Your task to perform on an android device: change notifications settings Image 0: 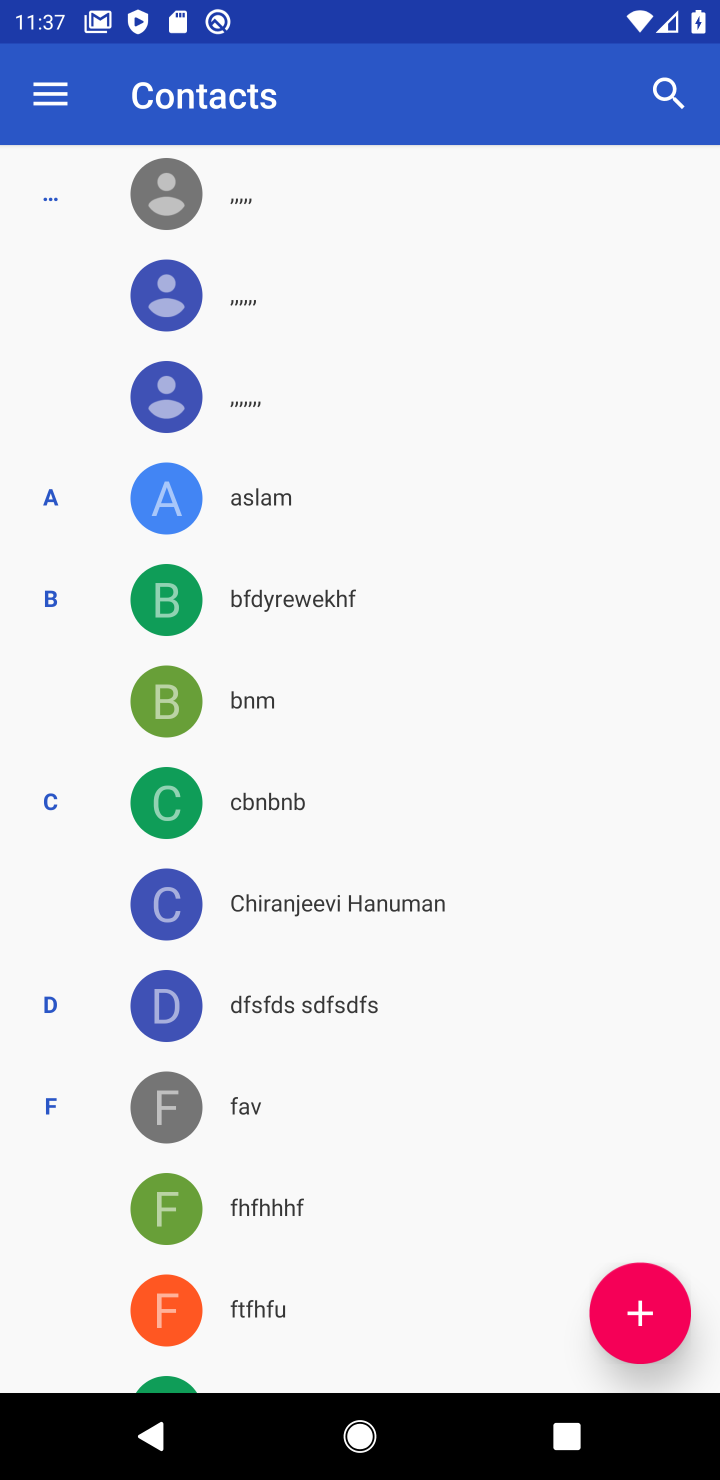
Step 0: press home button
Your task to perform on an android device: change notifications settings Image 1: 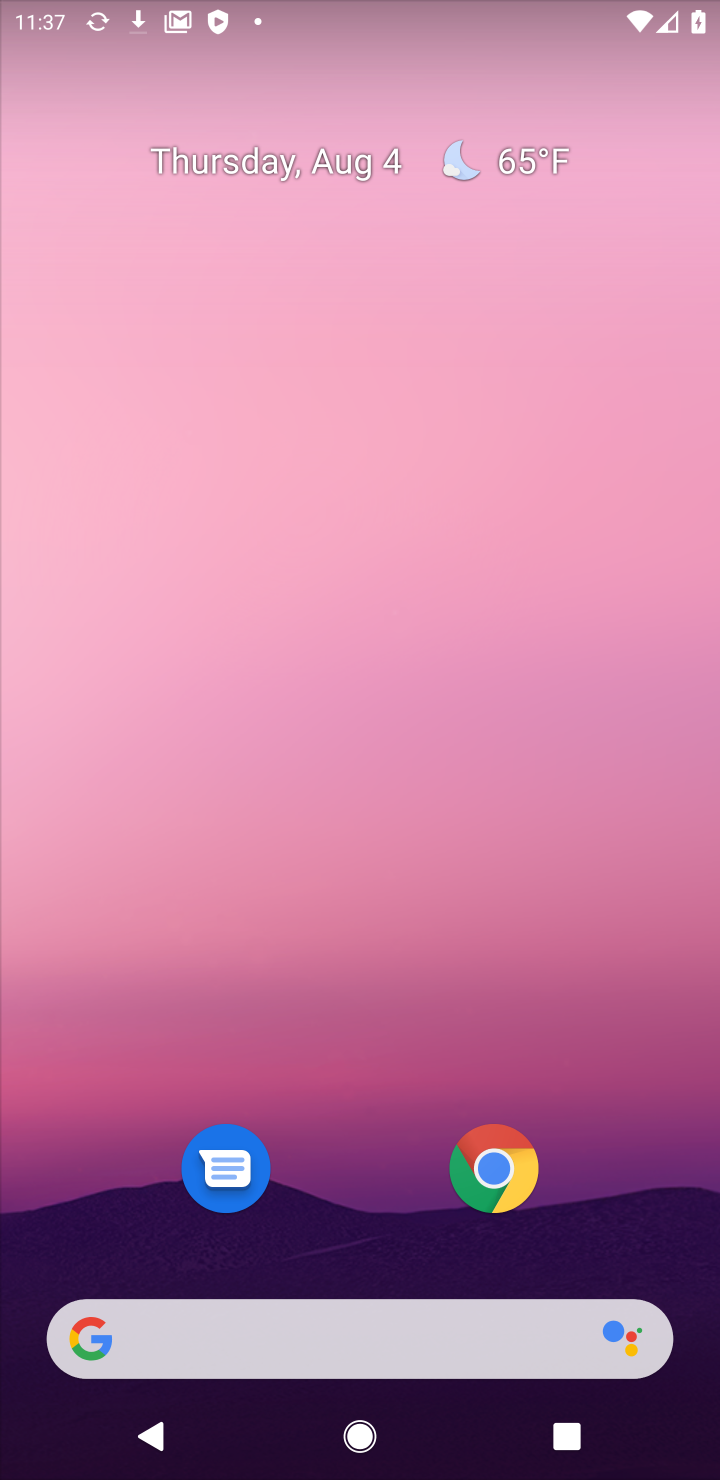
Step 1: drag from (287, 773) to (316, 19)
Your task to perform on an android device: change notifications settings Image 2: 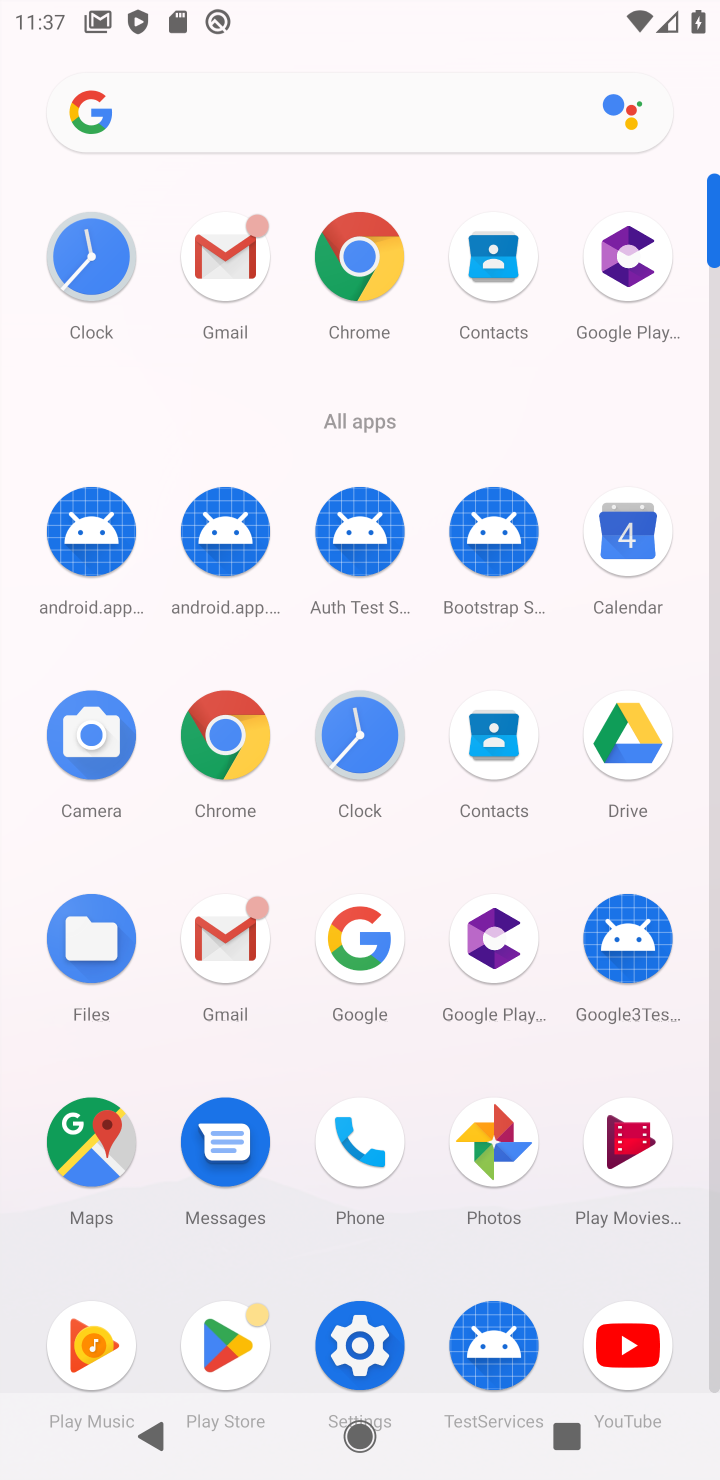
Step 2: click (366, 1325)
Your task to perform on an android device: change notifications settings Image 3: 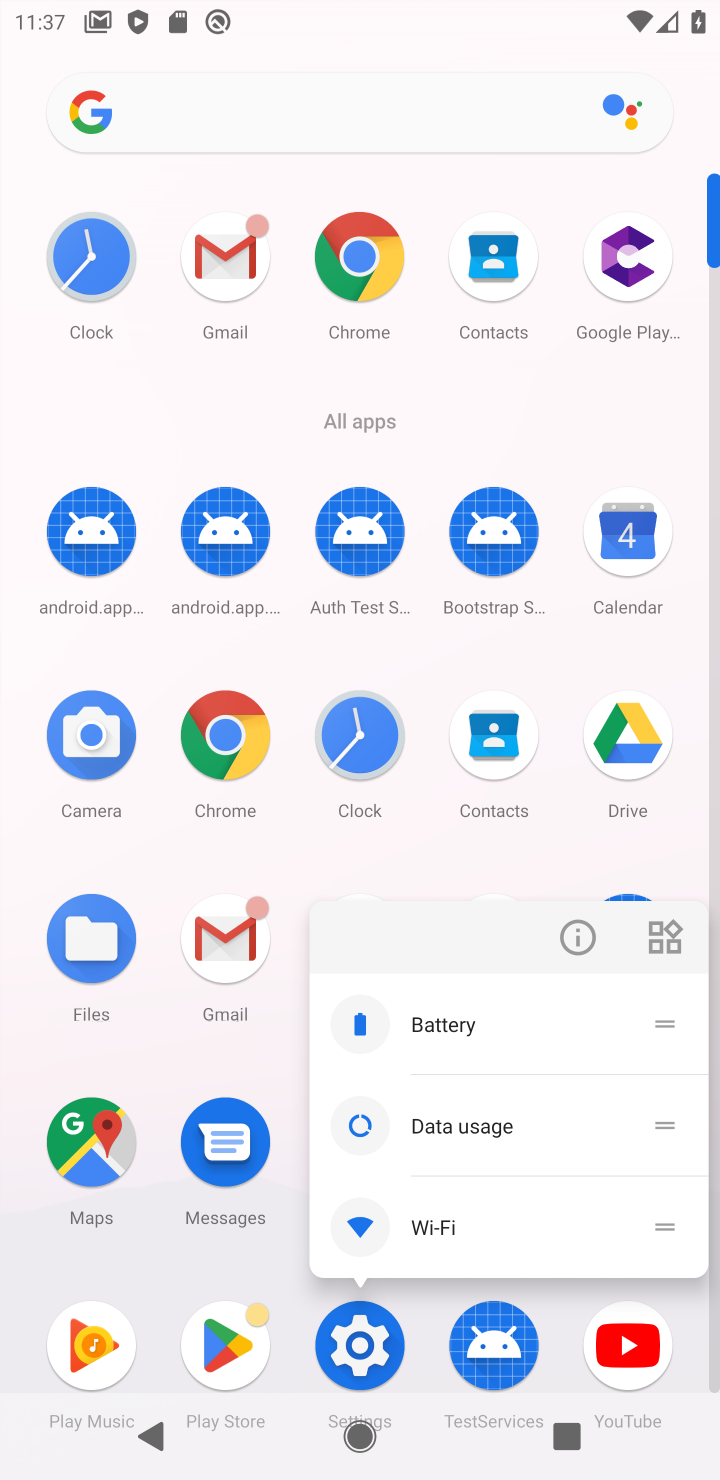
Step 3: click (371, 1342)
Your task to perform on an android device: change notifications settings Image 4: 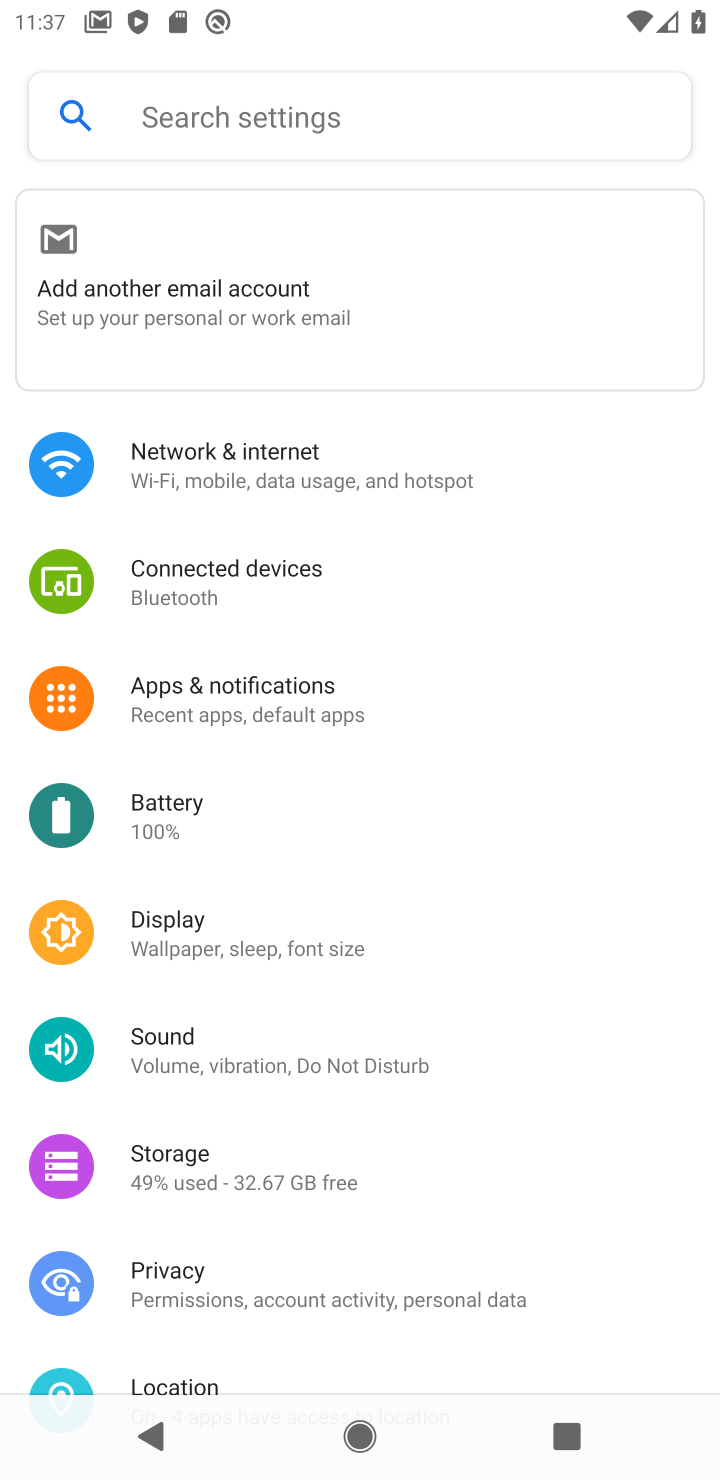
Step 4: click (276, 707)
Your task to perform on an android device: change notifications settings Image 5: 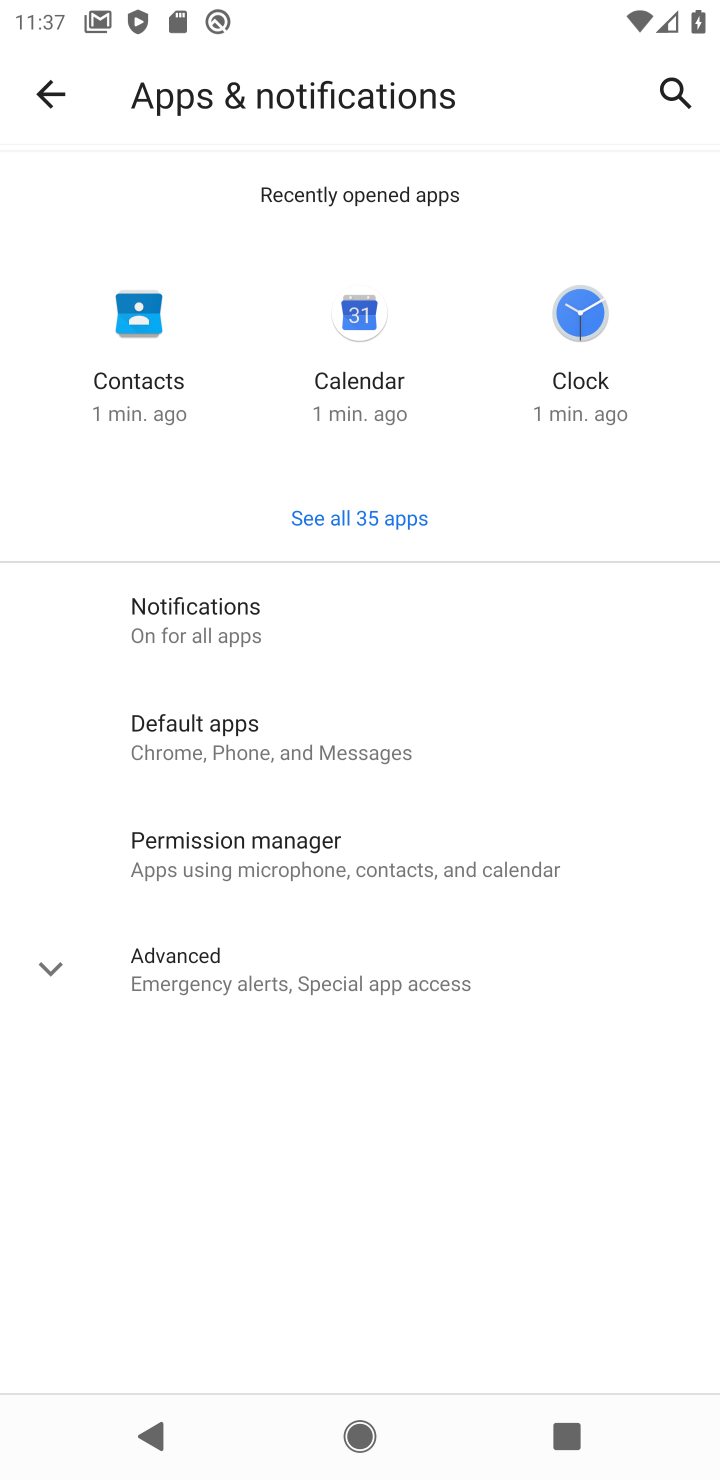
Step 5: click (273, 627)
Your task to perform on an android device: change notifications settings Image 6: 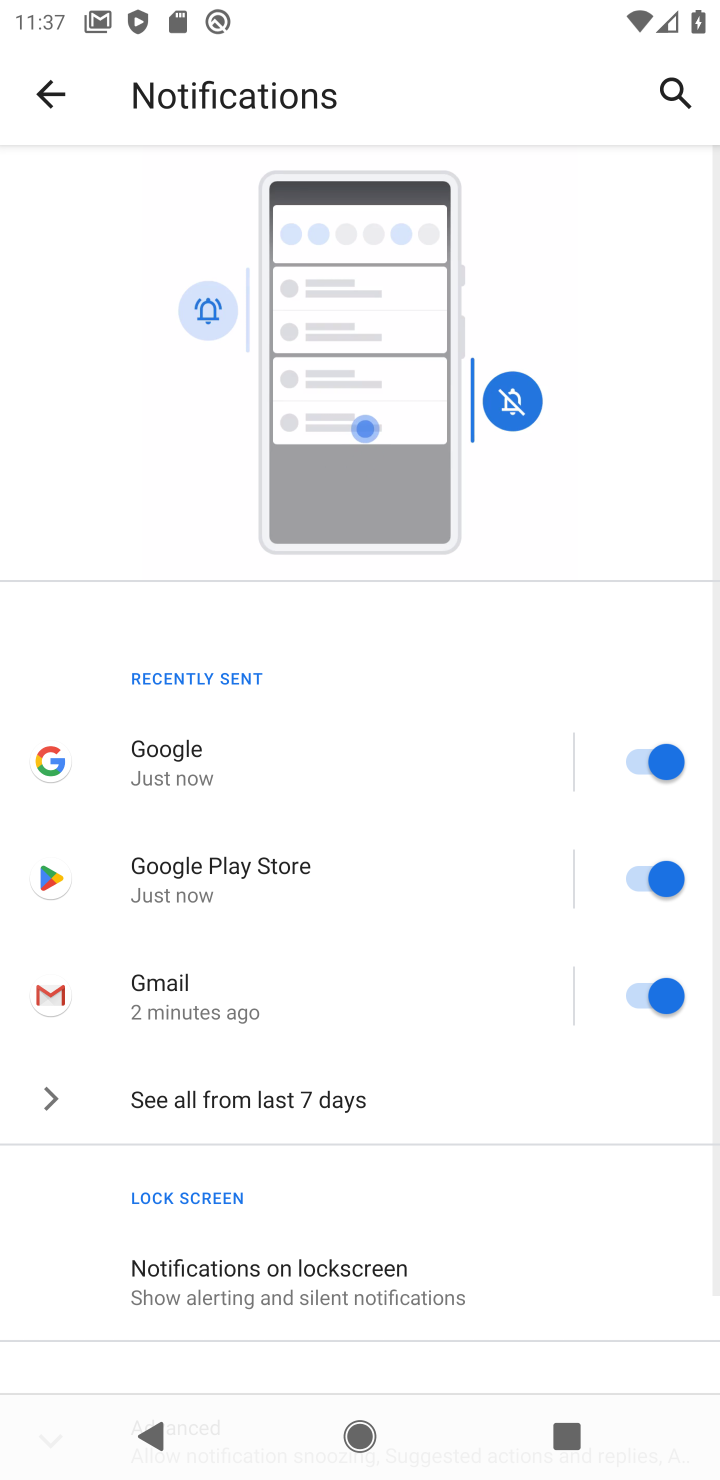
Step 6: click (187, 1092)
Your task to perform on an android device: change notifications settings Image 7: 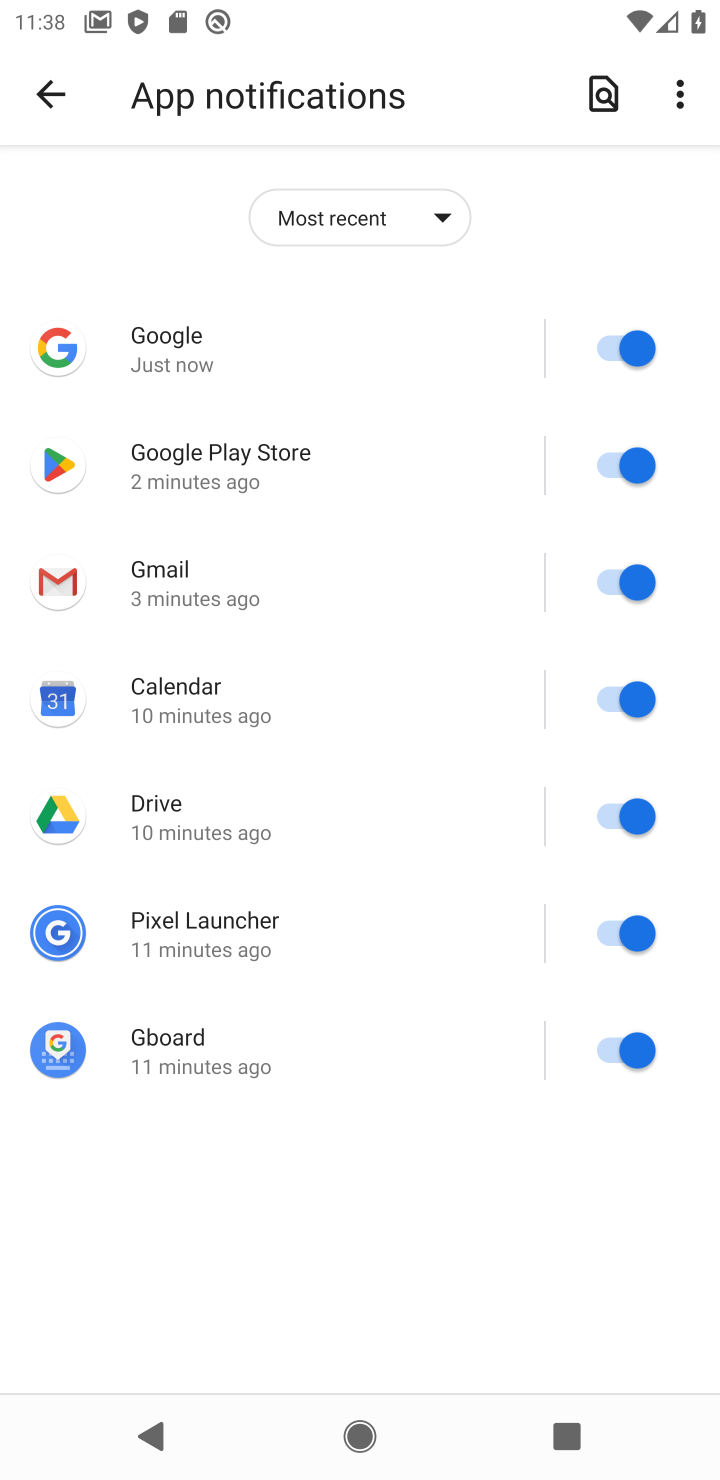
Step 7: click (566, 355)
Your task to perform on an android device: change notifications settings Image 8: 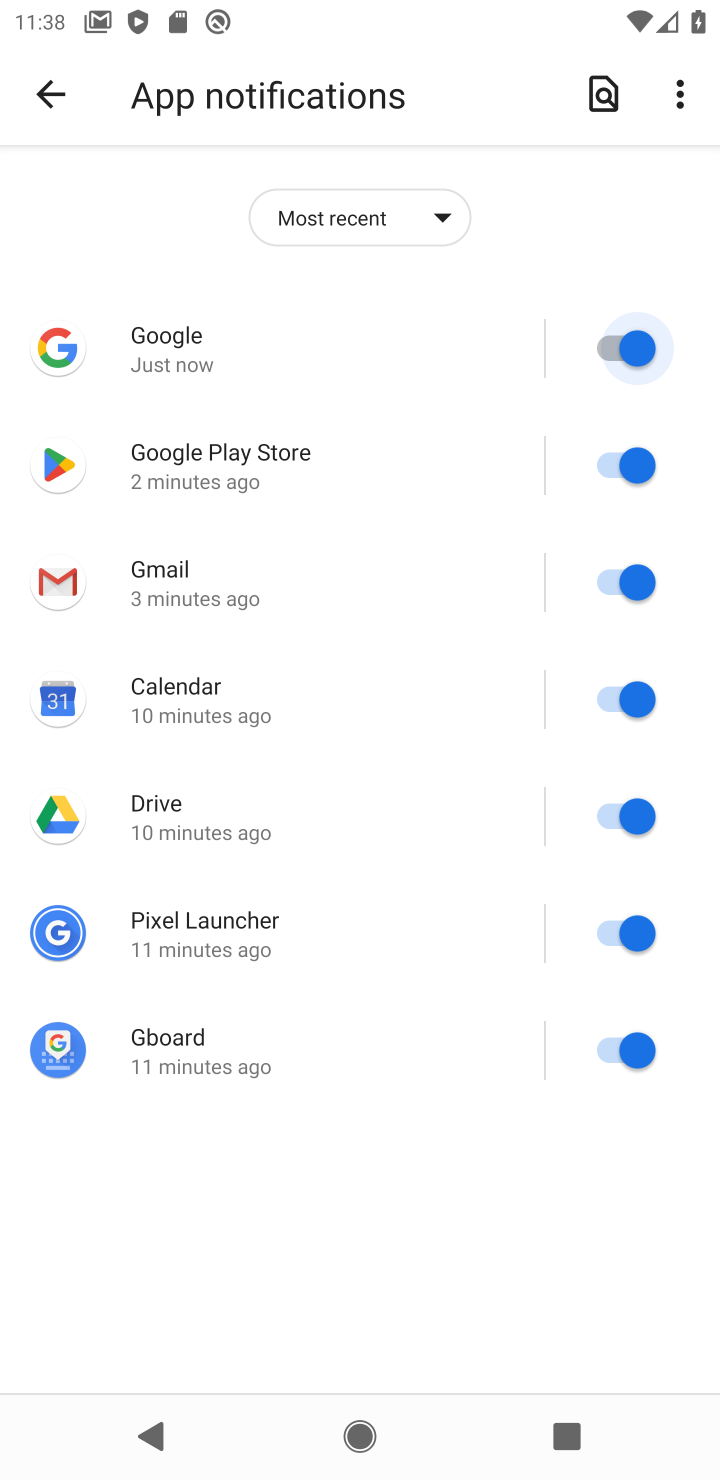
Step 8: click (580, 464)
Your task to perform on an android device: change notifications settings Image 9: 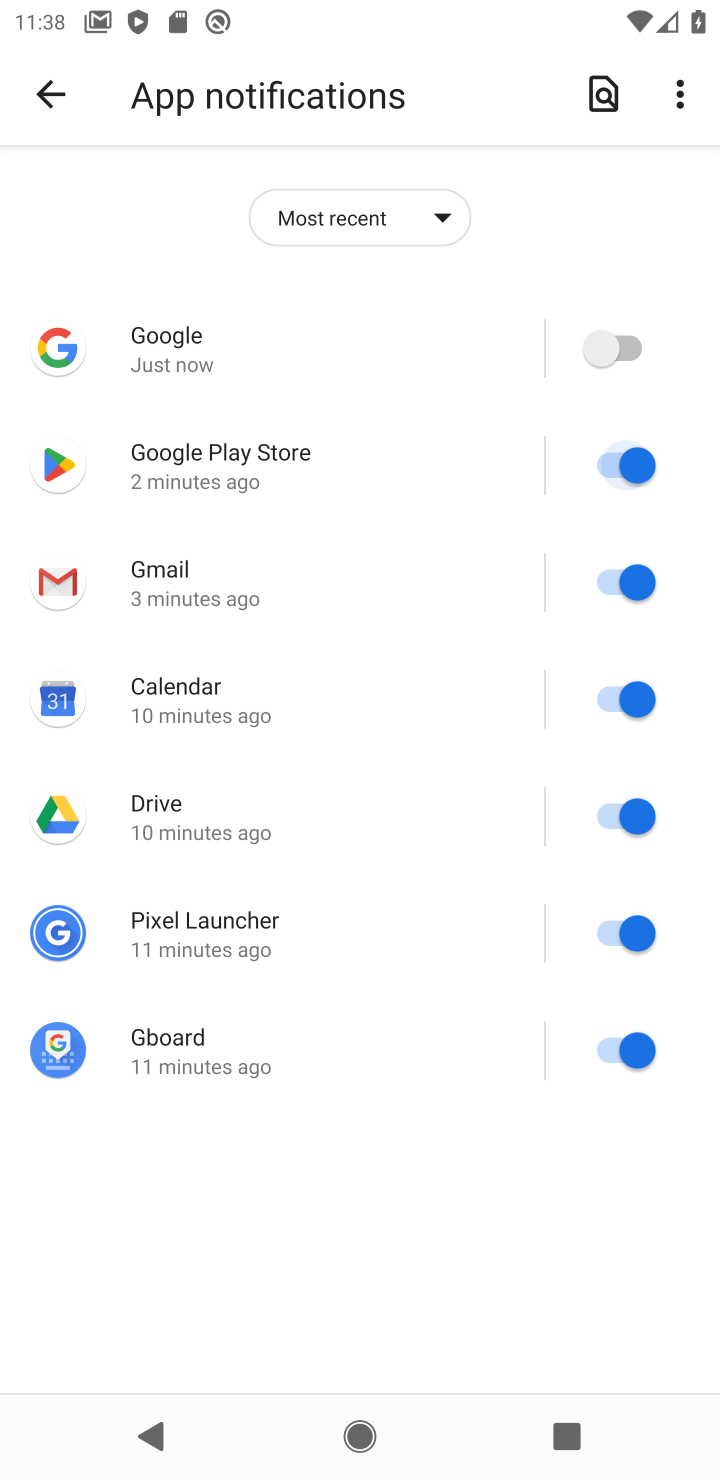
Step 9: click (580, 589)
Your task to perform on an android device: change notifications settings Image 10: 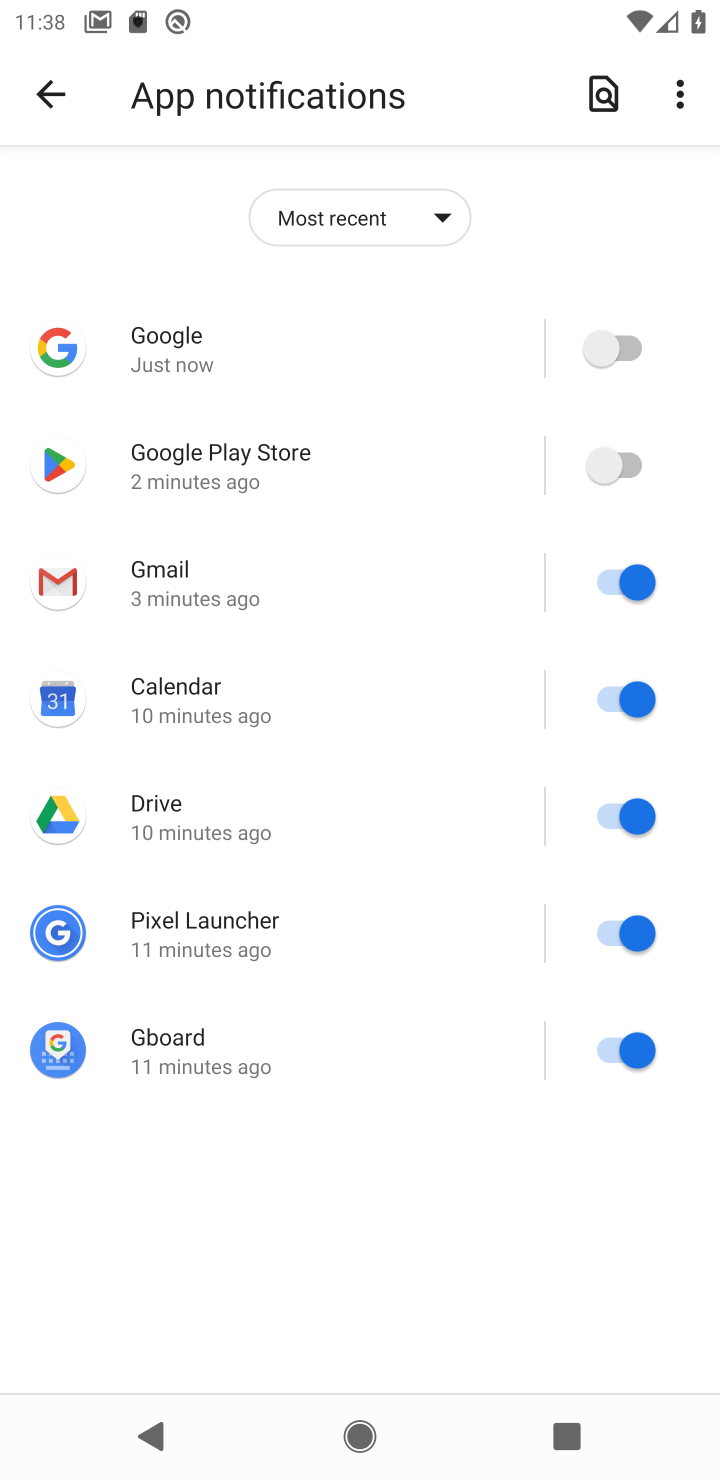
Step 10: click (575, 705)
Your task to perform on an android device: change notifications settings Image 11: 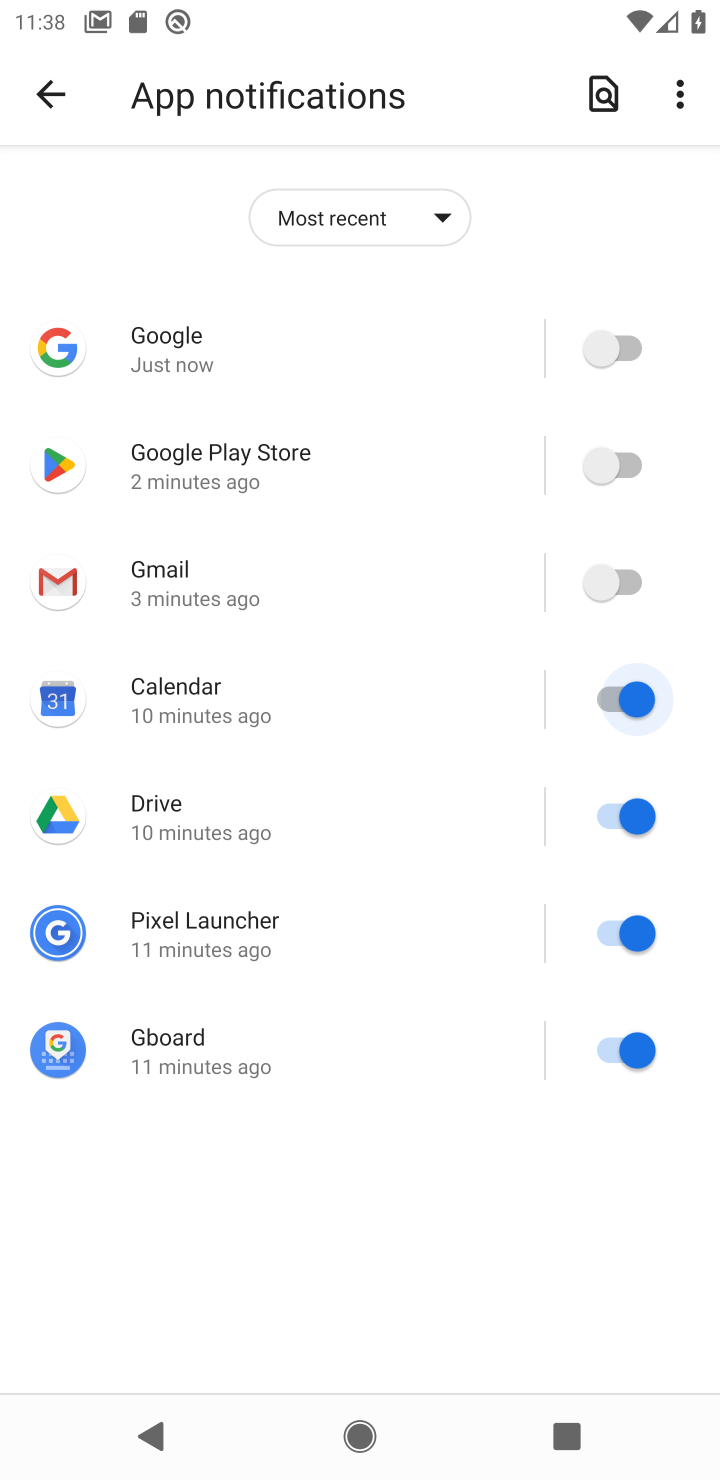
Step 11: click (581, 810)
Your task to perform on an android device: change notifications settings Image 12: 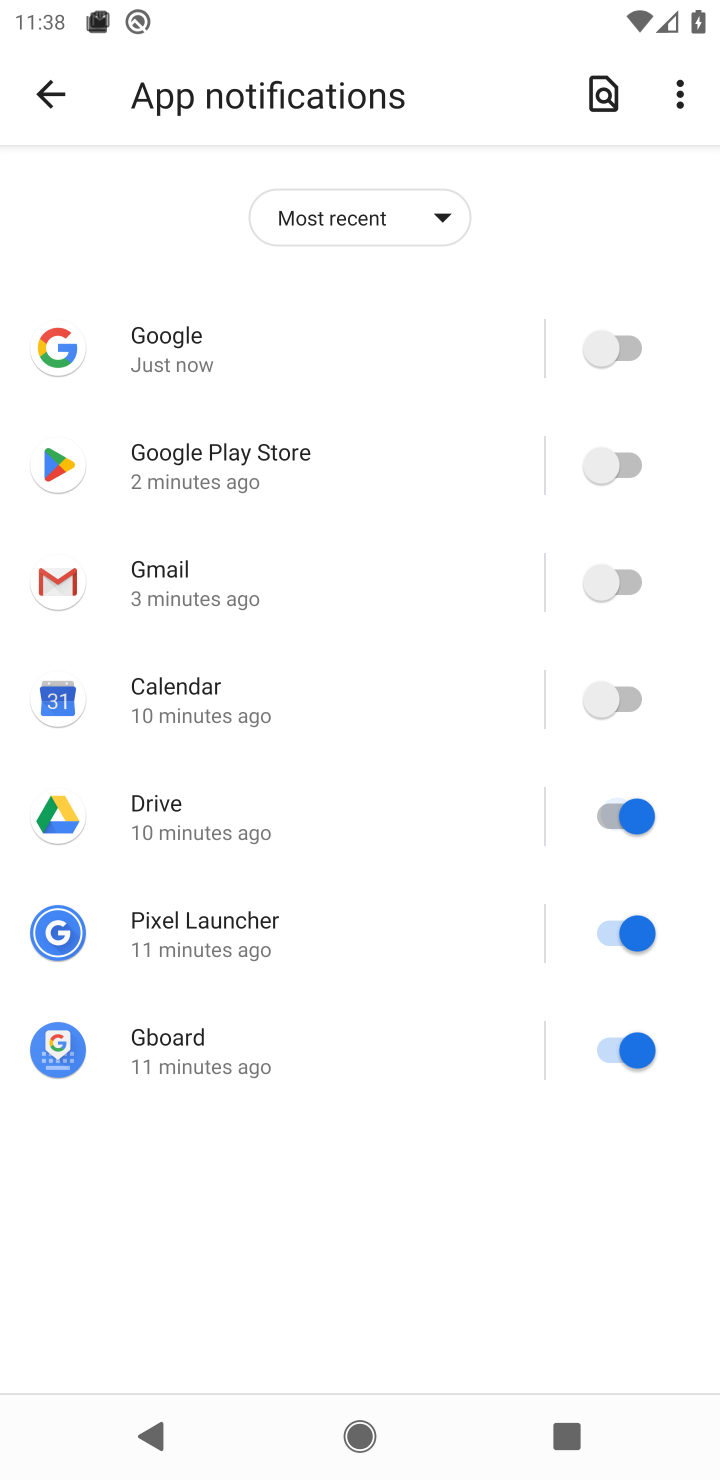
Step 12: click (576, 922)
Your task to perform on an android device: change notifications settings Image 13: 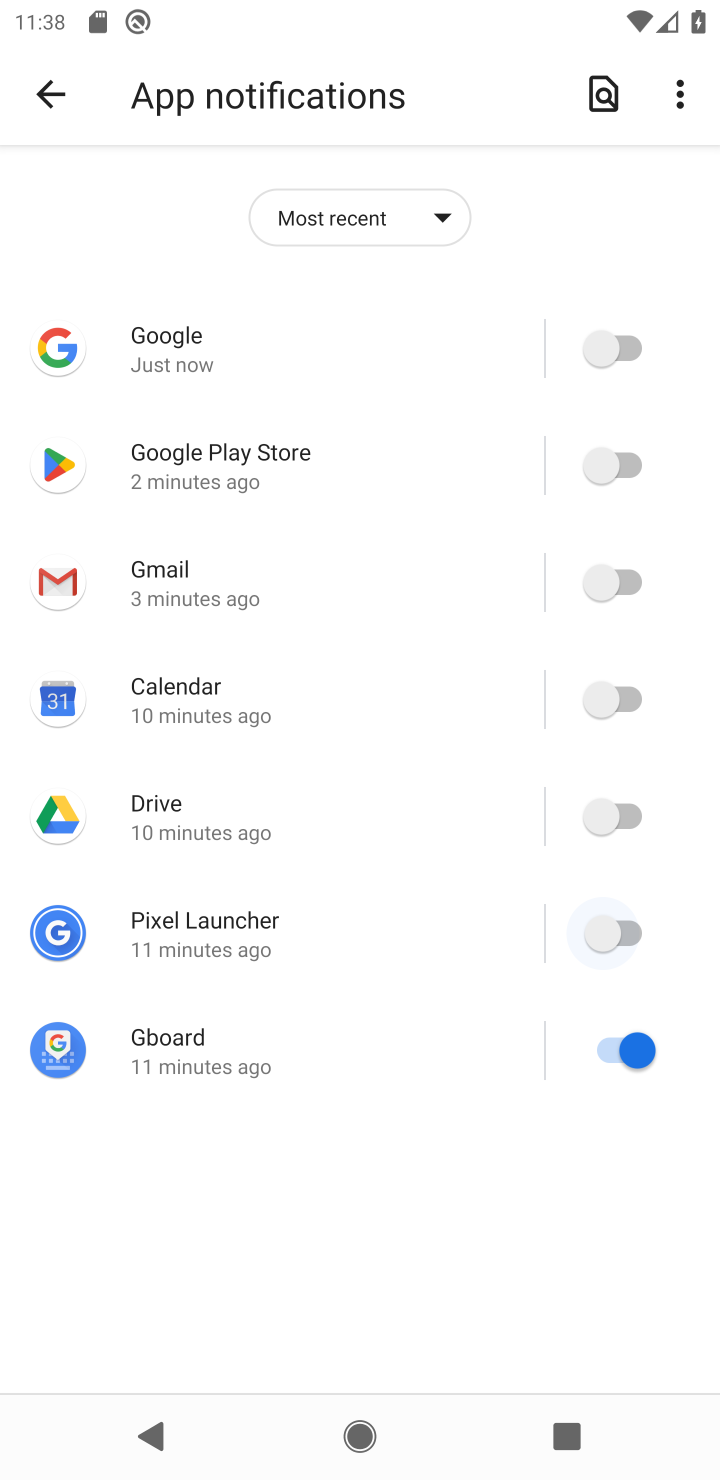
Step 13: click (585, 1049)
Your task to perform on an android device: change notifications settings Image 14: 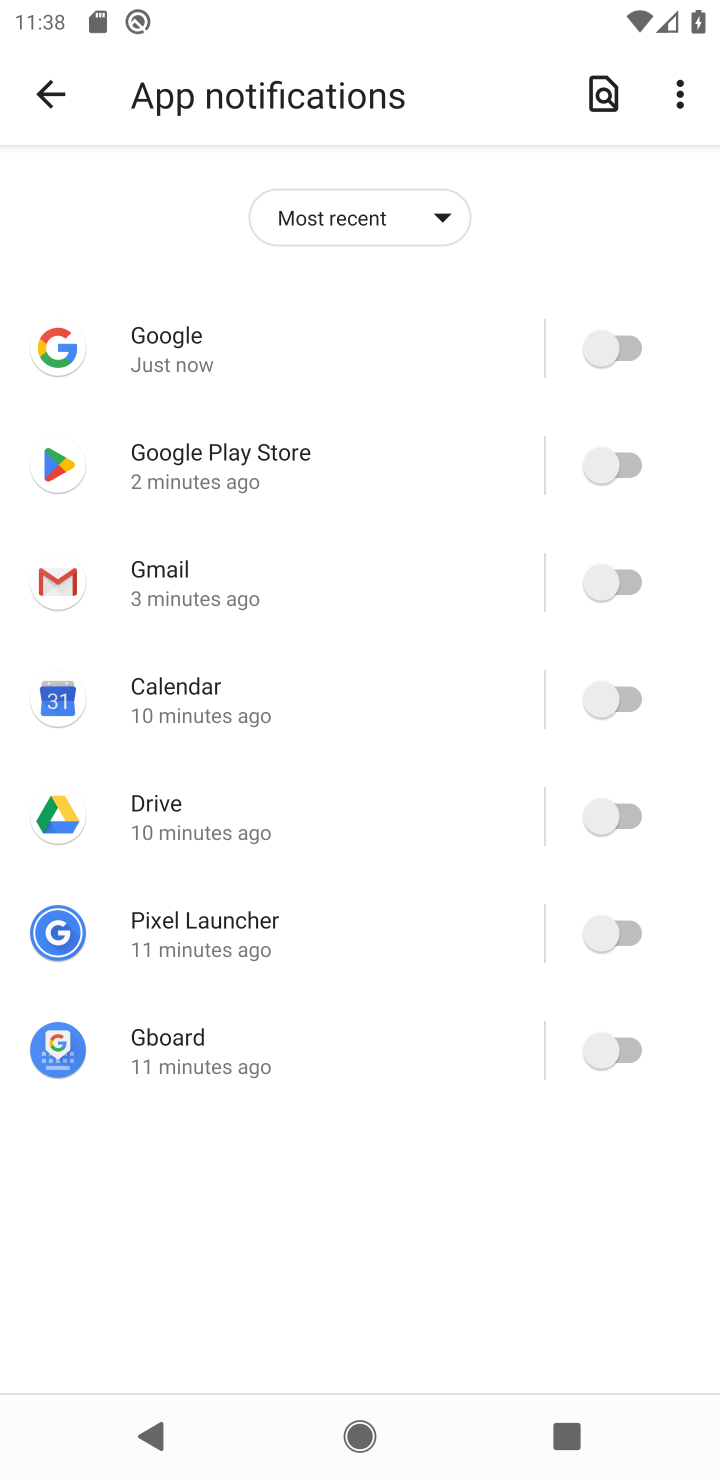
Step 14: task complete